Your task to perform on an android device: check out phone information Image 0: 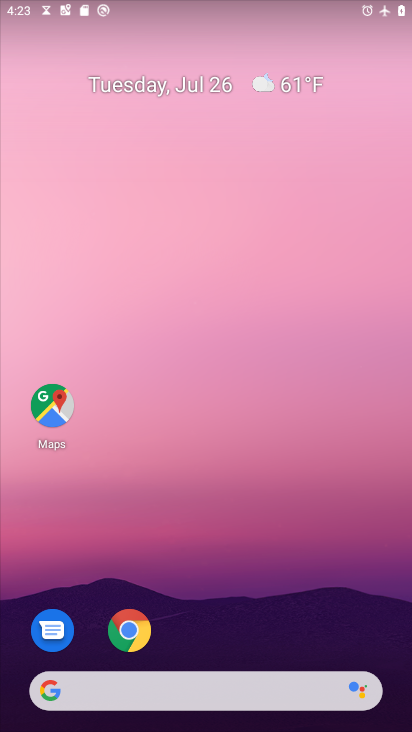
Step 0: drag from (301, 675) to (190, 74)
Your task to perform on an android device: check out phone information Image 1: 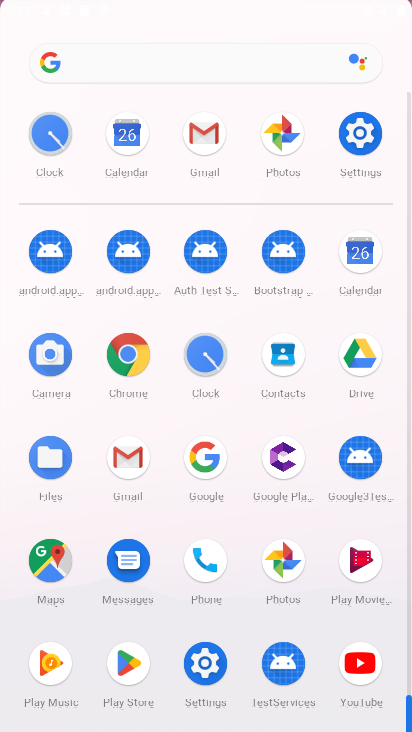
Step 1: drag from (262, 458) to (241, 52)
Your task to perform on an android device: check out phone information Image 2: 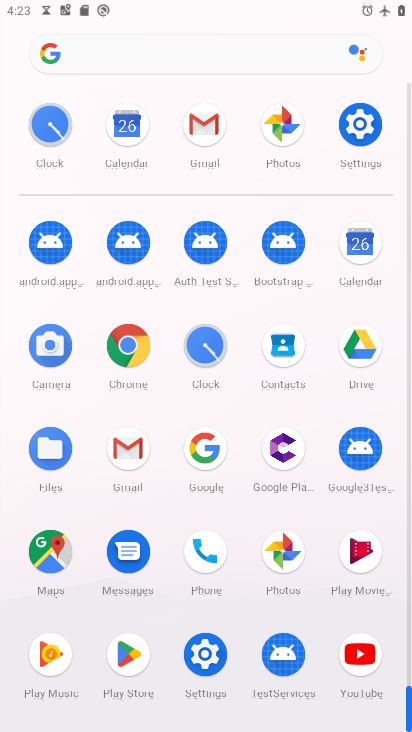
Step 2: drag from (258, 288) to (250, 51)
Your task to perform on an android device: check out phone information Image 3: 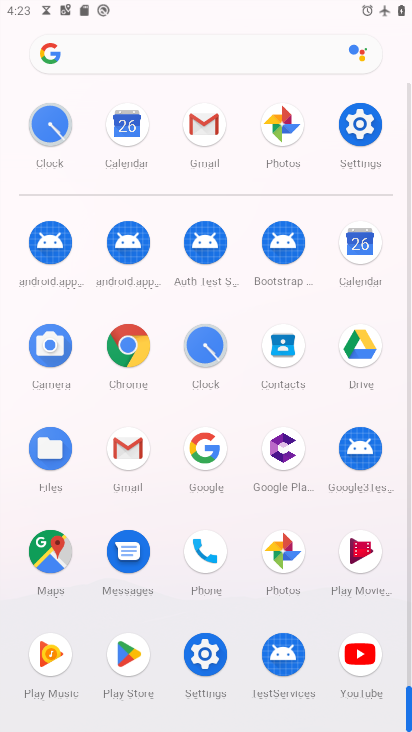
Step 3: click (355, 112)
Your task to perform on an android device: check out phone information Image 4: 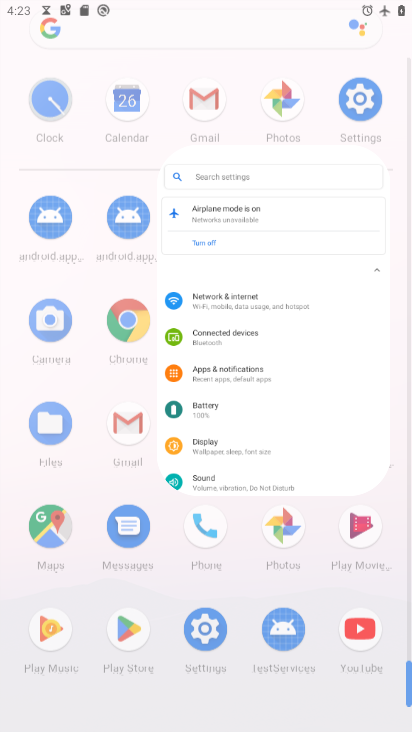
Step 4: click (360, 113)
Your task to perform on an android device: check out phone information Image 5: 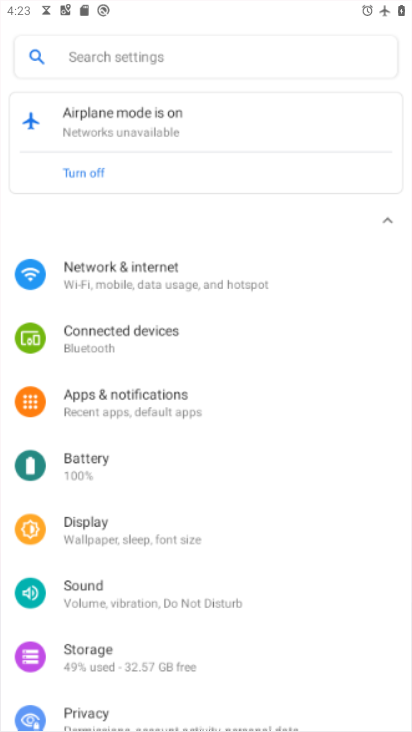
Step 5: click (362, 113)
Your task to perform on an android device: check out phone information Image 6: 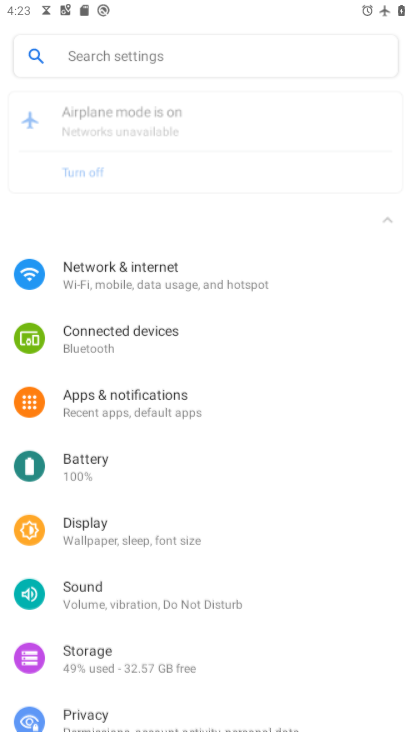
Step 6: click (368, 114)
Your task to perform on an android device: check out phone information Image 7: 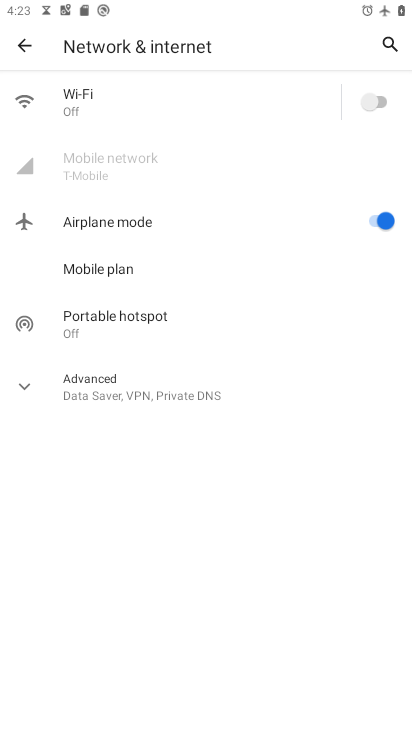
Step 7: click (24, 50)
Your task to perform on an android device: check out phone information Image 8: 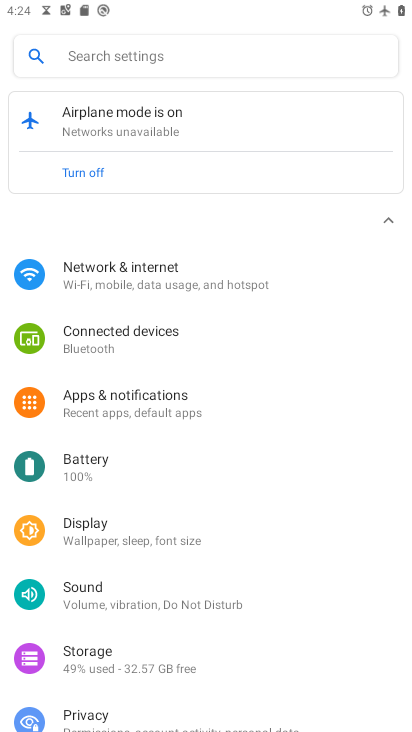
Step 8: drag from (122, 574) to (129, 225)
Your task to perform on an android device: check out phone information Image 9: 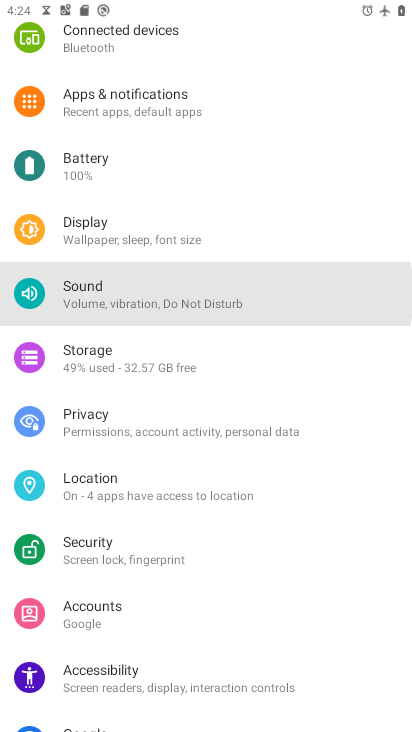
Step 9: drag from (140, 467) to (104, 288)
Your task to perform on an android device: check out phone information Image 10: 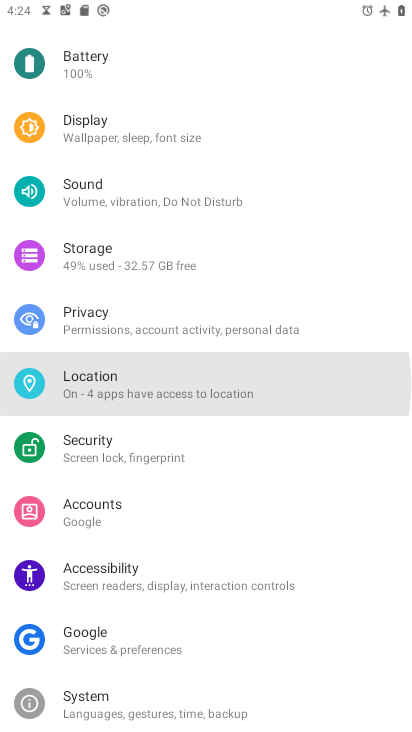
Step 10: drag from (130, 486) to (130, 267)
Your task to perform on an android device: check out phone information Image 11: 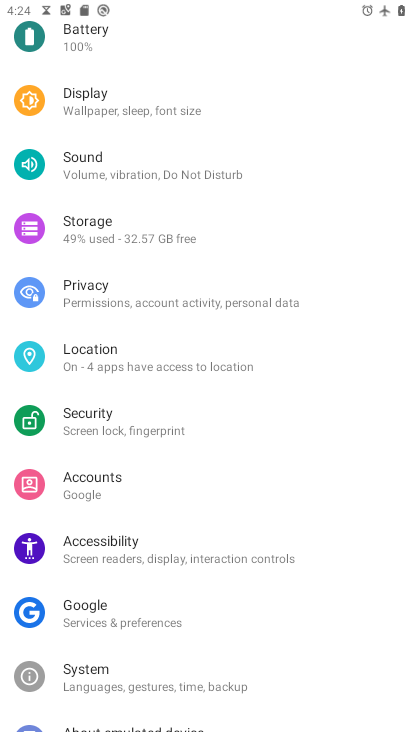
Step 11: drag from (165, 546) to (133, 162)
Your task to perform on an android device: check out phone information Image 12: 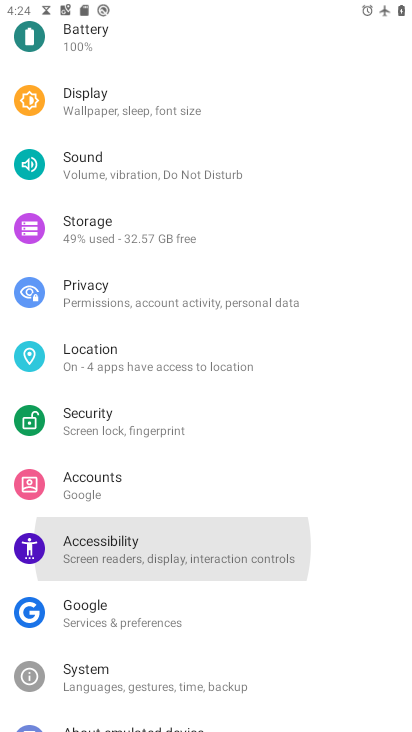
Step 12: drag from (162, 472) to (120, 135)
Your task to perform on an android device: check out phone information Image 13: 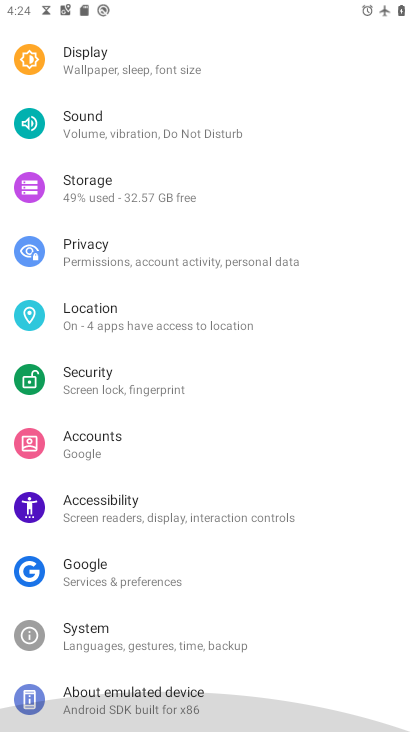
Step 13: drag from (178, 392) to (154, 76)
Your task to perform on an android device: check out phone information Image 14: 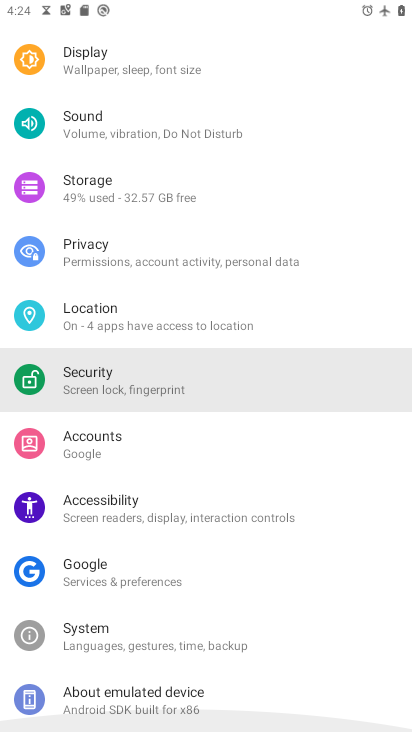
Step 14: drag from (159, 464) to (143, 156)
Your task to perform on an android device: check out phone information Image 15: 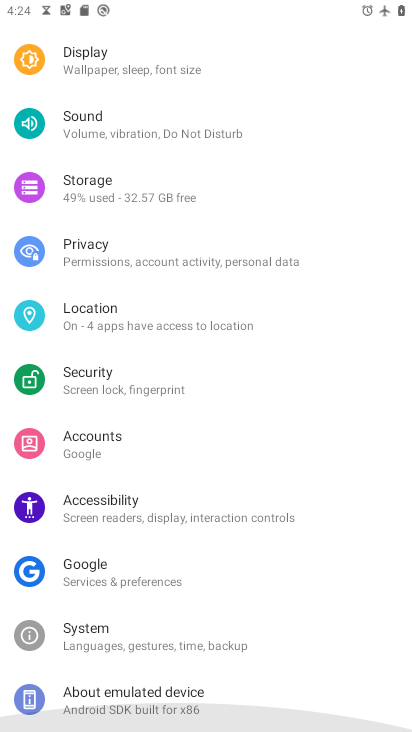
Step 15: drag from (193, 361) to (193, 56)
Your task to perform on an android device: check out phone information Image 16: 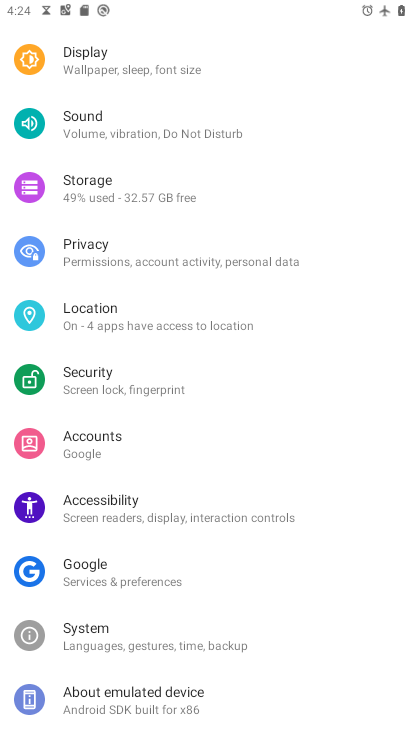
Step 16: drag from (185, 625) to (178, 204)
Your task to perform on an android device: check out phone information Image 17: 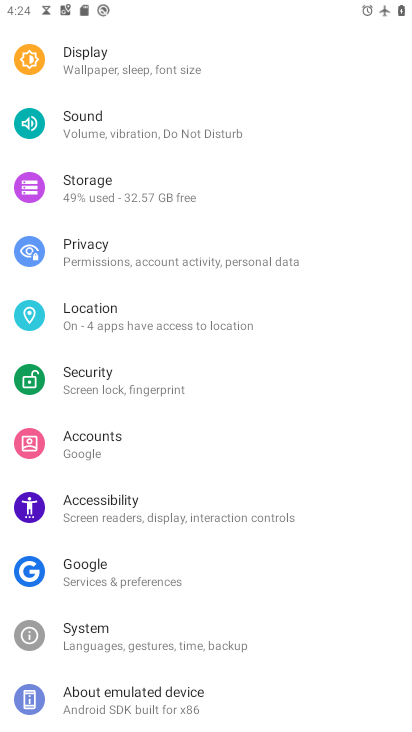
Step 17: click (117, 696)
Your task to perform on an android device: check out phone information Image 18: 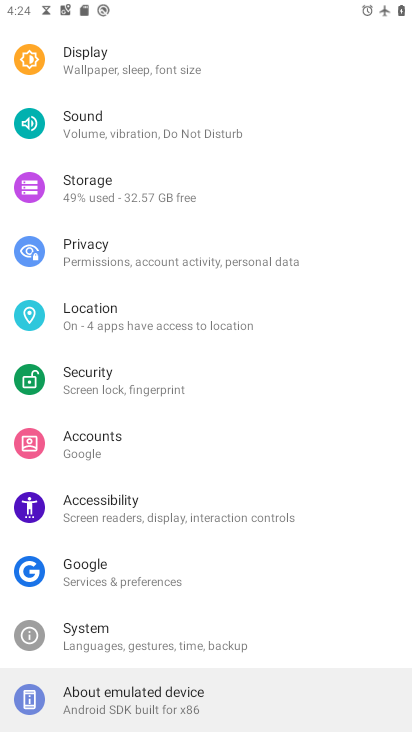
Step 18: click (117, 696)
Your task to perform on an android device: check out phone information Image 19: 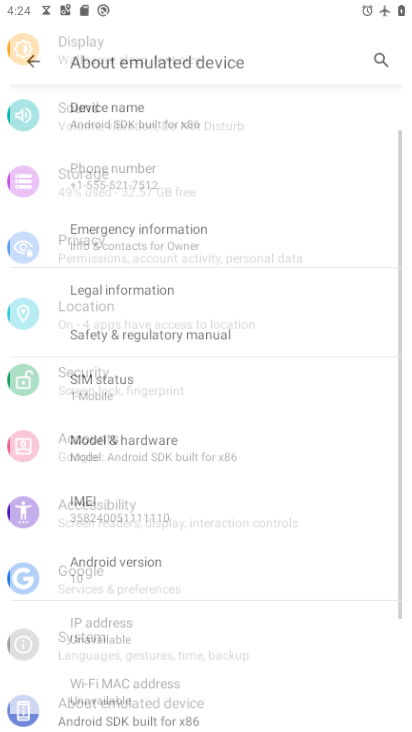
Step 19: click (115, 695)
Your task to perform on an android device: check out phone information Image 20: 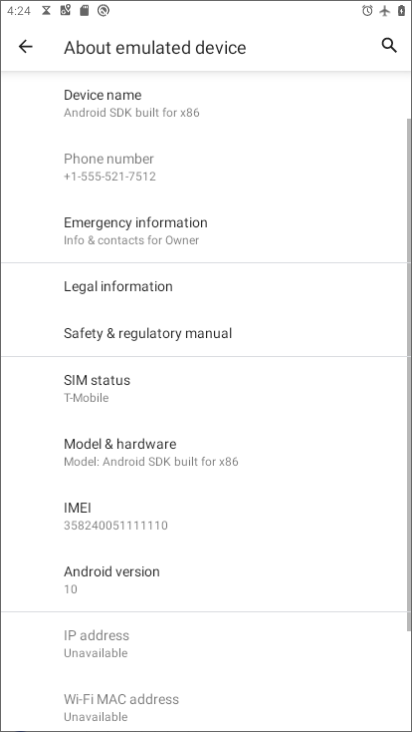
Step 20: click (115, 695)
Your task to perform on an android device: check out phone information Image 21: 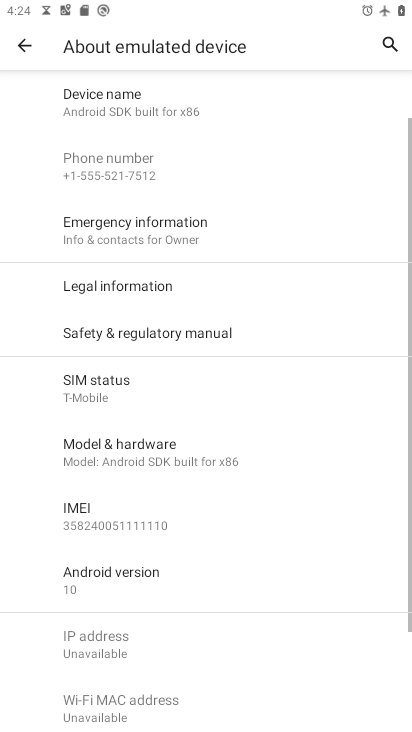
Step 21: task complete